Your task to perform on an android device: Do I have any events today? Image 0: 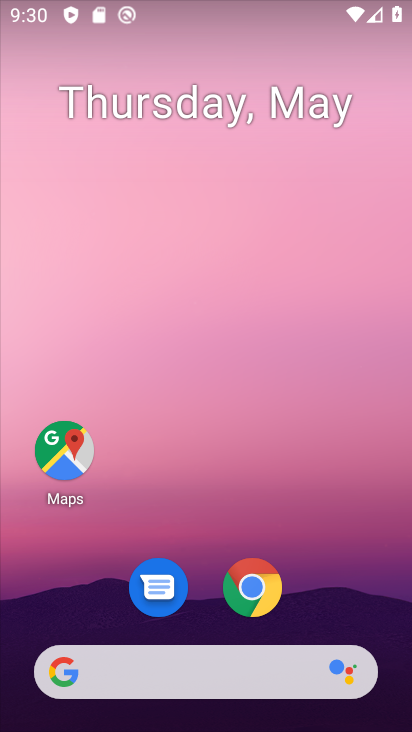
Step 0: drag from (314, 572) to (247, 147)
Your task to perform on an android device: Do I have any events today? Image 1: 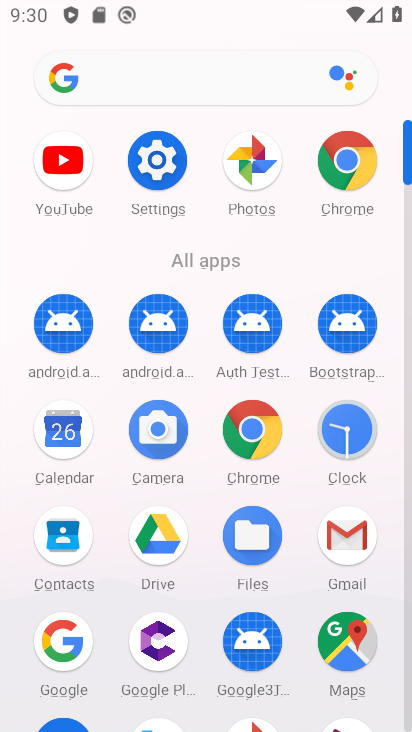
Step 1: click (59, 427)
Your task to perform on an android device: Do I have any events today? Image 2: 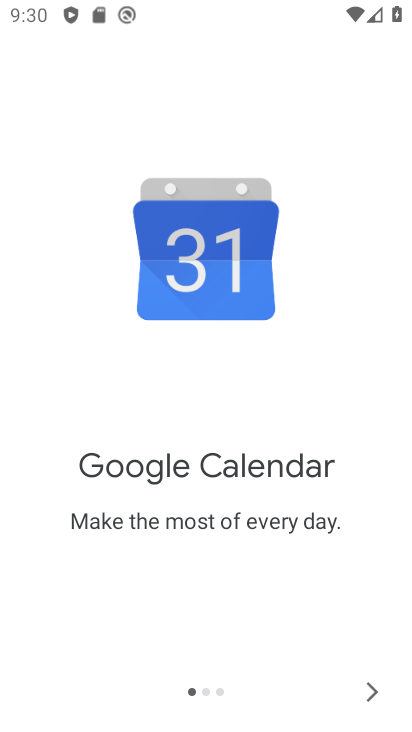
Step 2: click (375, 695)
Your task to perform on an android device: Do I have any events today? Image 3: 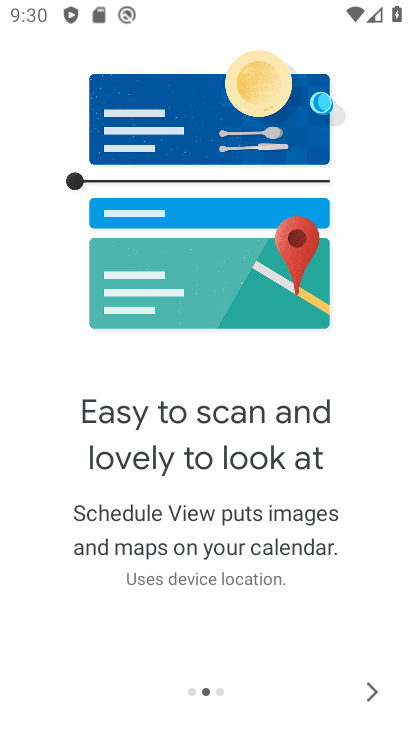
Step 3: click (375, 695)
Your task to perform on an android device: Do I have any events today? Image 4: 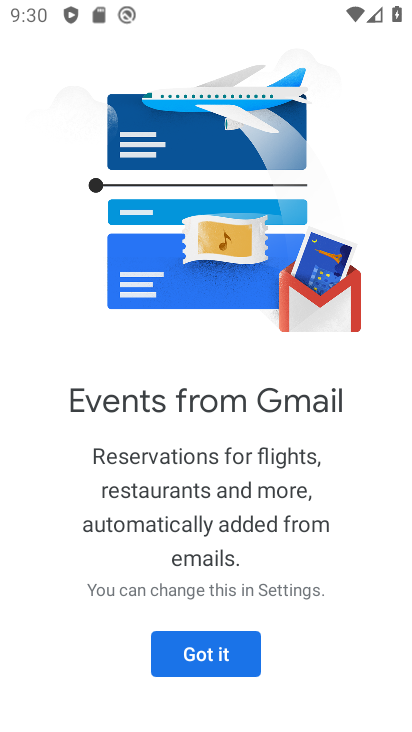
Step 4: click (230, 650)
Your task to perform on an android device: Do I have any events today? Image 5: 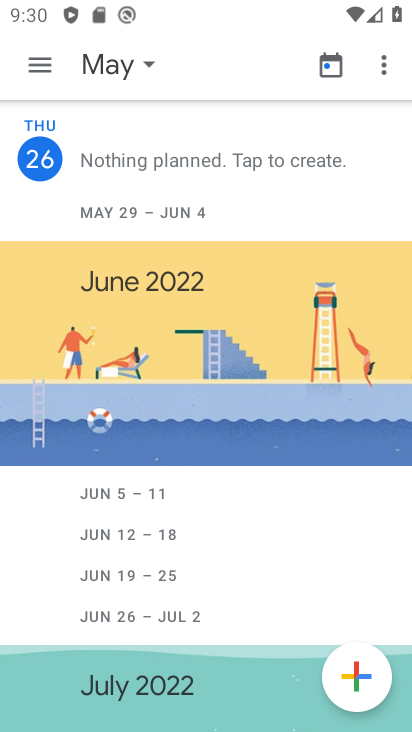
Step 5: click (33, 58)
Your task to perform on an android device: Do I have any events today? Image 6: 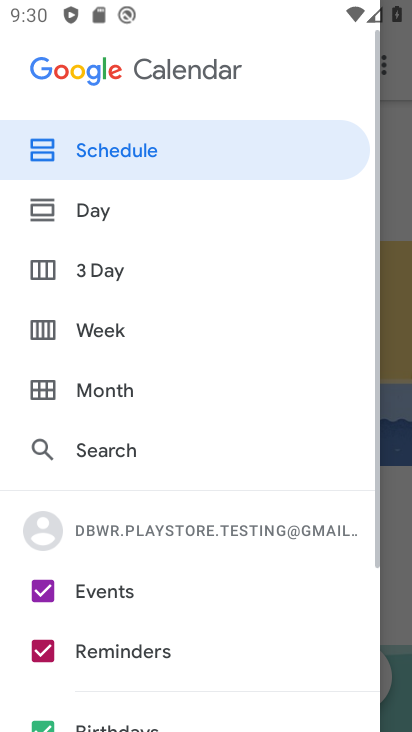
Step 6: drag from (145, 602) to (175, 334)
Your task to perform on an android device: Do I have any events today? Image 7: 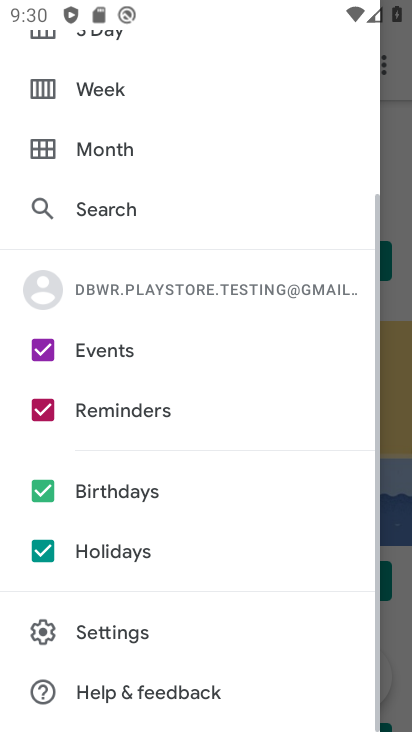
Step 7: click (48, 407)
Your task to perform on an android device: Do I have any events today? Image 8: 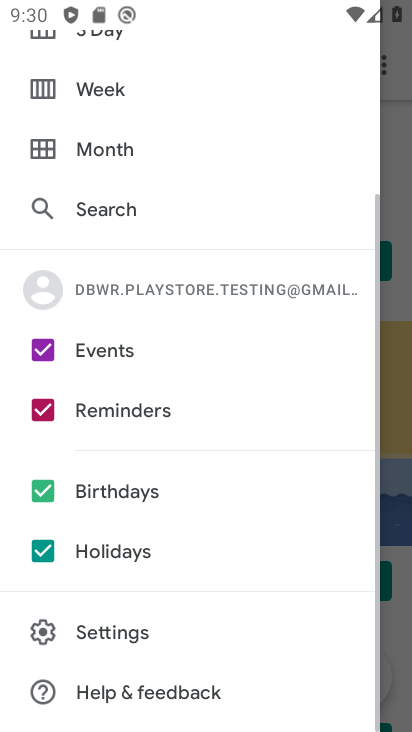
Step 8: click (46, 492)
Your task to perform on an android device: Do I have any events today? Image 9: 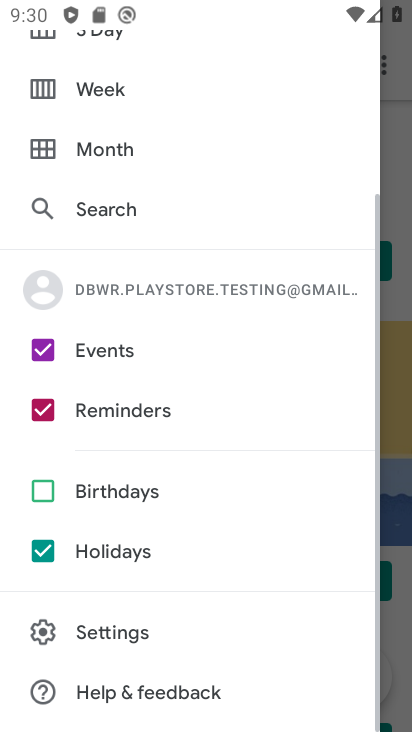
Step 9: click (44, 553)
Your task to perform on an android device: Do I have any events today? Image 10: 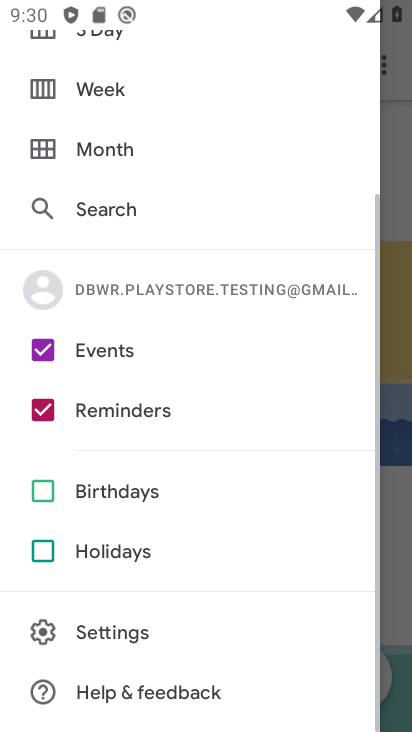
Step 10: drag from (211, 168) to (186, 582)
Your task to perform on an android device: Do I have any events today? Image 11: 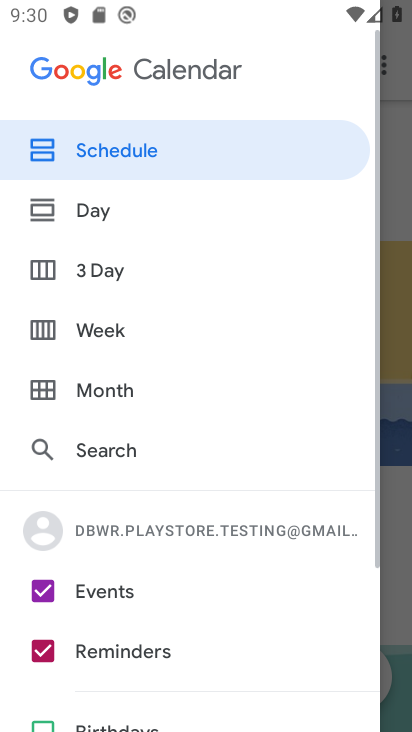
Step 11: click (209, 141)
Your task to perform on an android device: Do I have any events today? Image 12: 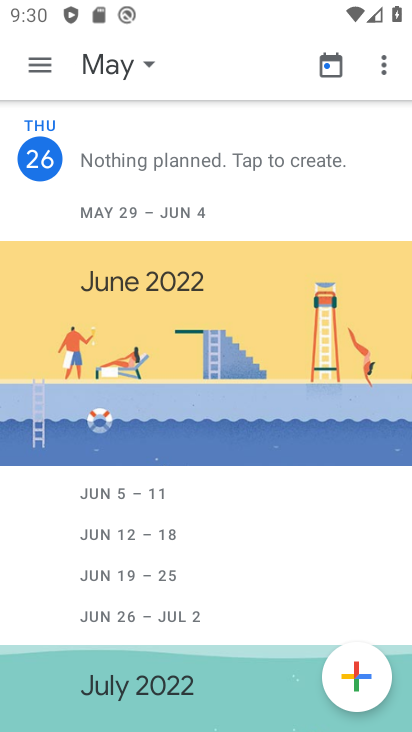
Step 12: drag from (304, 497) to (315, 190)
Your task to perform on an android device: Do I have any events today? Image 13: 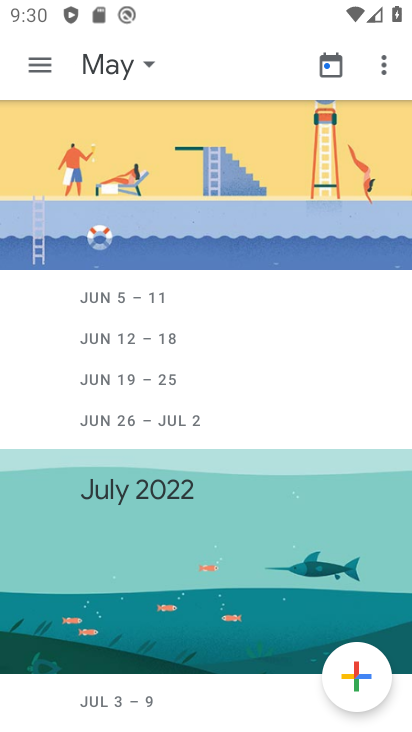
Step 13: drag from (308, 272) to (249, 611)
Your task to perform on an android device: Do I have any events today? Image 14: 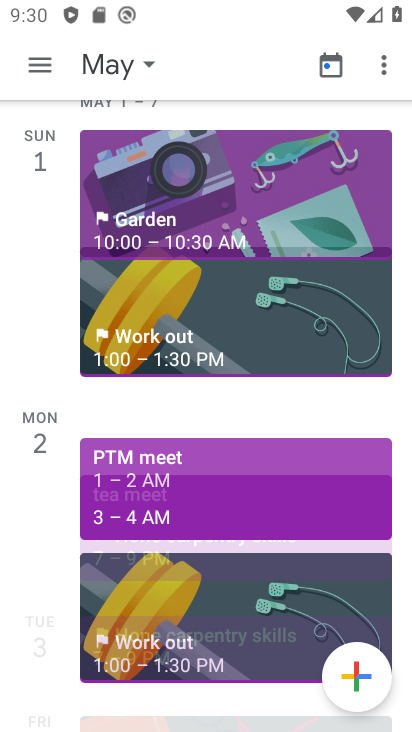
Step 14: drag from (248, 576) to (232, 278)
Your task to perform on an android device: Do I have any events today? Image 15: 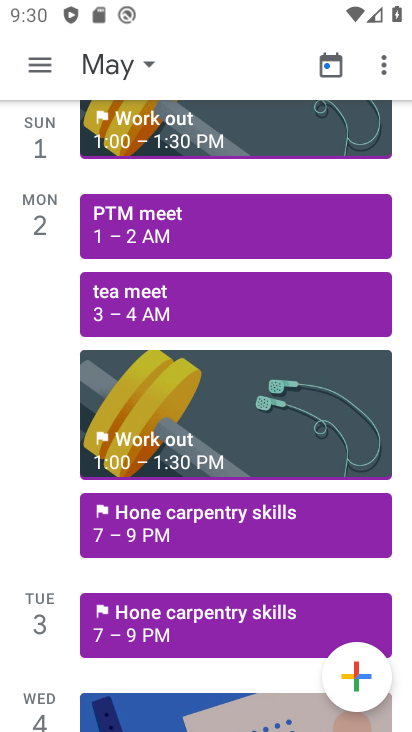
Step 15: click (146, 58)
Your task to perform on an android device: Do I have any events today? Image 16: 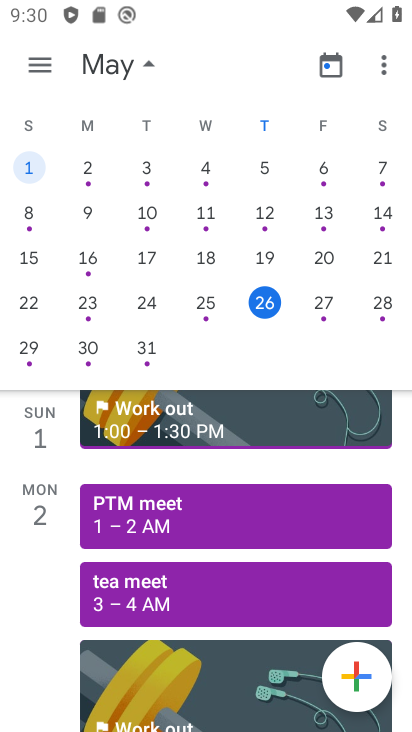
Step 16: click (322, 307)
Your task to perform on an android device: Do I have any events today? Image 17: 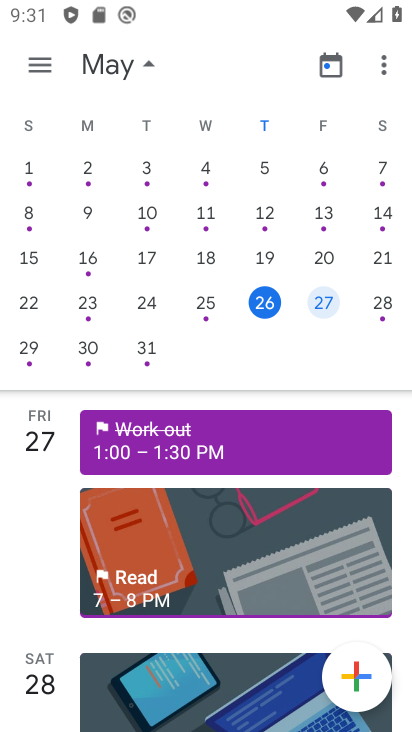
Step 17: task complete